Your task to perform on an android device: turn on sleep mode Image 0: 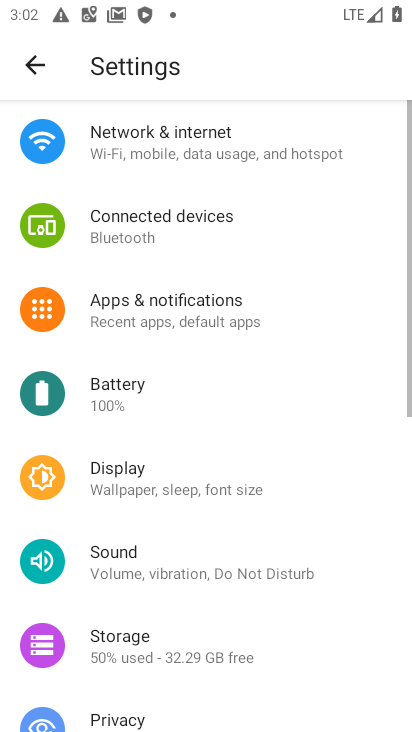
Step 0: press home button
Your task to perform on an android device: turn on sleep mode Image 1: 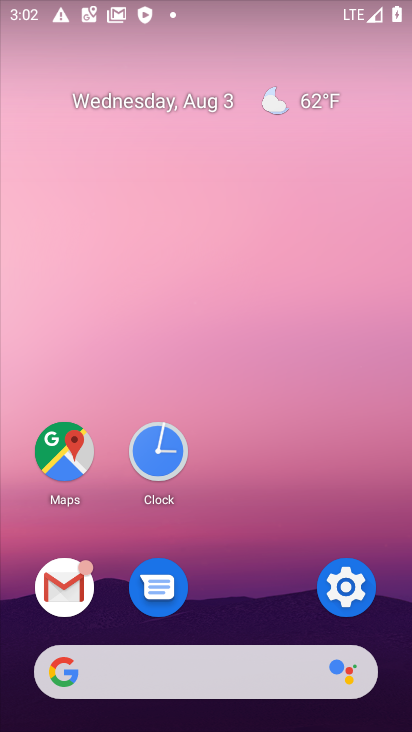
Step 1: click (352, 575)
Your task to perform on an android device: turn on sleep mode Image 2: 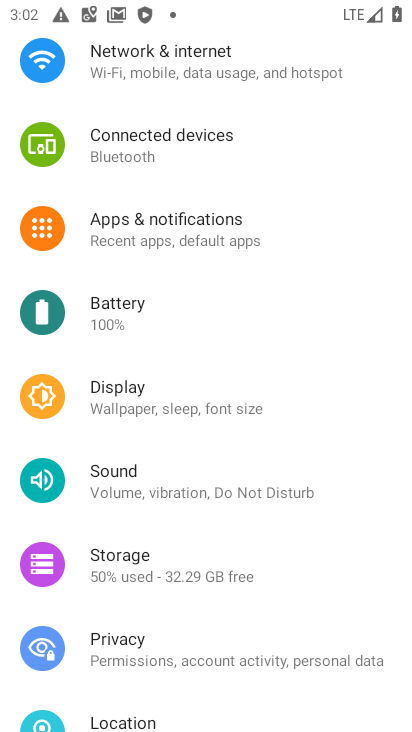
Step 2: click (117, 386)
Your task to perform on an android device: turn on sleep mode Image 3: 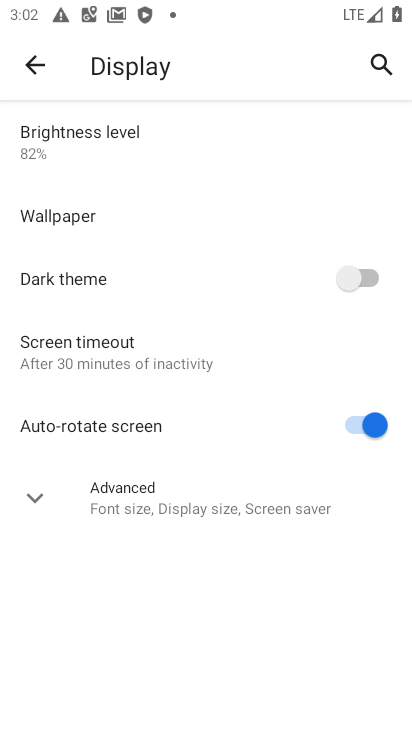
Step 3: click (110, 477)
Your task to perform on an android device: turn on sleep mode Image 4: 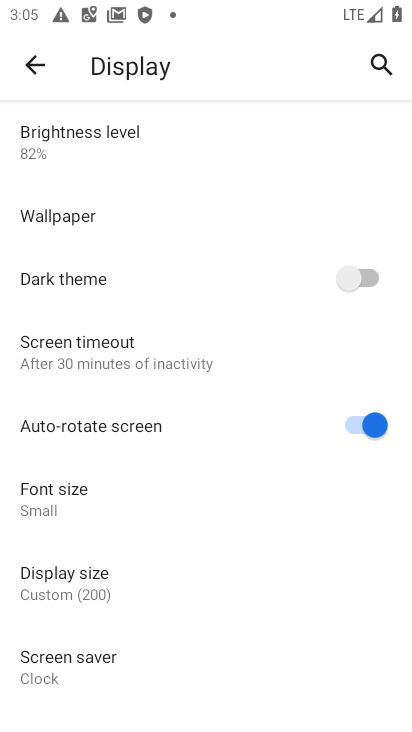
Step 4: task complete